Your task to perform on an android device: toggle notifications settings in the gmail app Image 0: 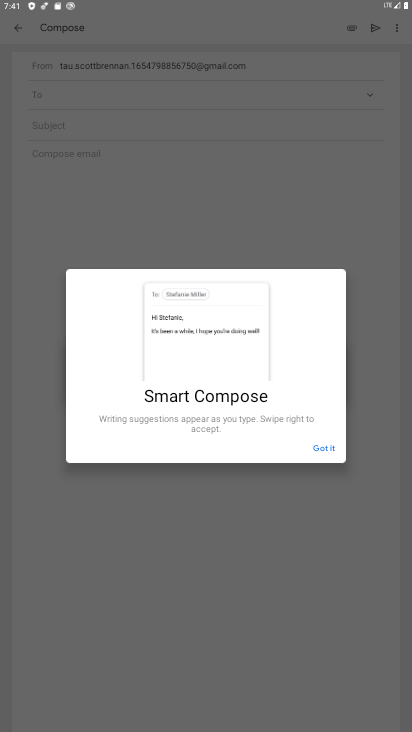
Step 0: press home button
Your task to perform on an android device: toggle notifications settings in the gmail app Image 1: 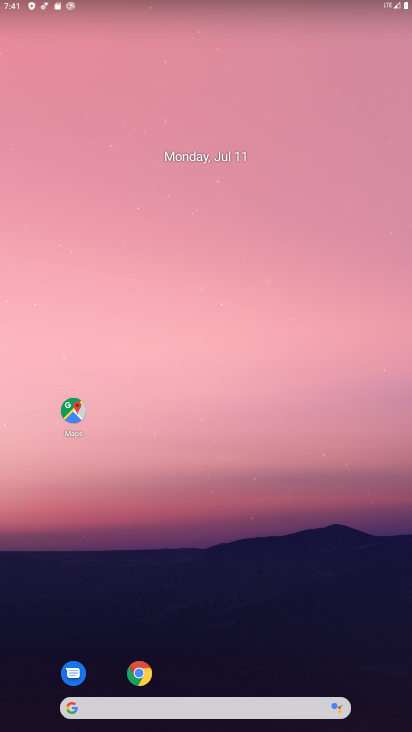
Step 1: drag from (161, 690) to (179, 441)
Your task to perform on an android device: toggle notifications settings in the gmail app Image 2: 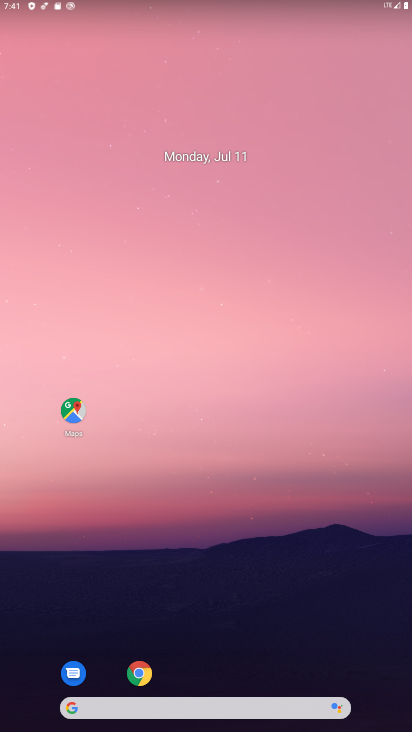
Step 2: drag from (231, 693) to (224, 263)
Your task to perform on an android device: toggle notifications settings in the gmail app Image 3: 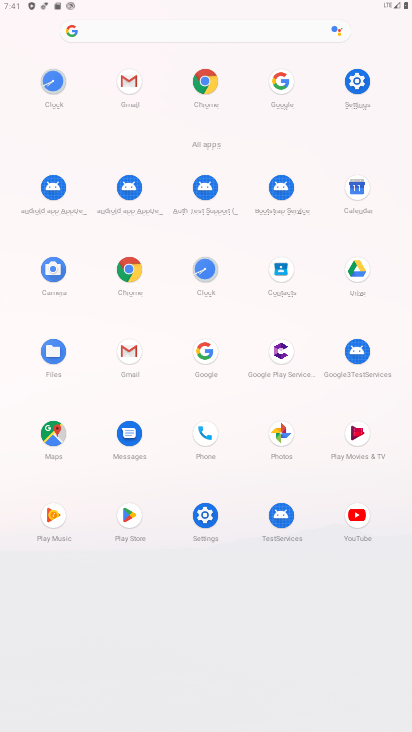
Step 3: click (132, 88)
Your task to perform on an android device: toggle notifications settings in the gmail app Image 4: 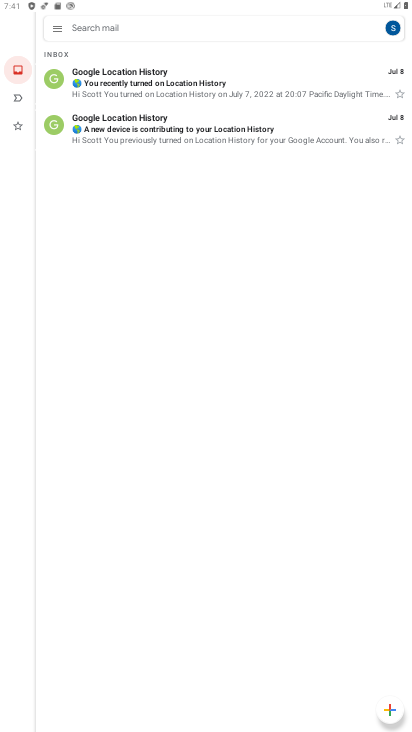
Step 4: click (59, 25)
Your task to perform on an android device: toggle notifications settings in the gmail app Image 5: 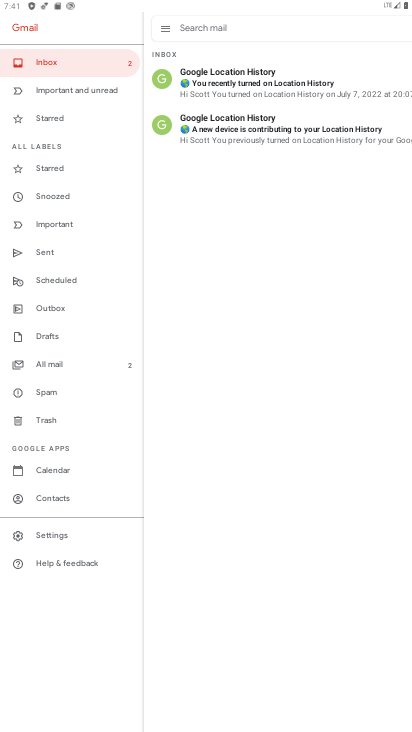
Step 5: click (69, 537)
Your task to perform on an android device: toggle notifications settings in the gmail app Image 6: 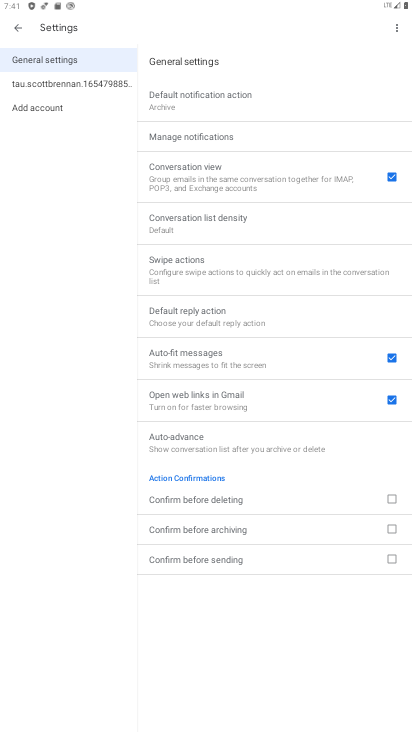
Step 6: click (169, 60)
Your task to perform on an android device: toggle notifications settings in the gmail app Image 7: 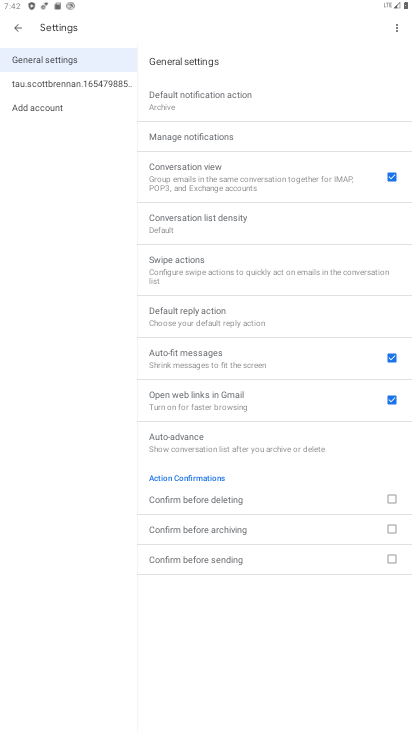
Step 7: click (174, 135)
Your task to perform on an android device: toggle notifications settings in the gmail app Image 8: 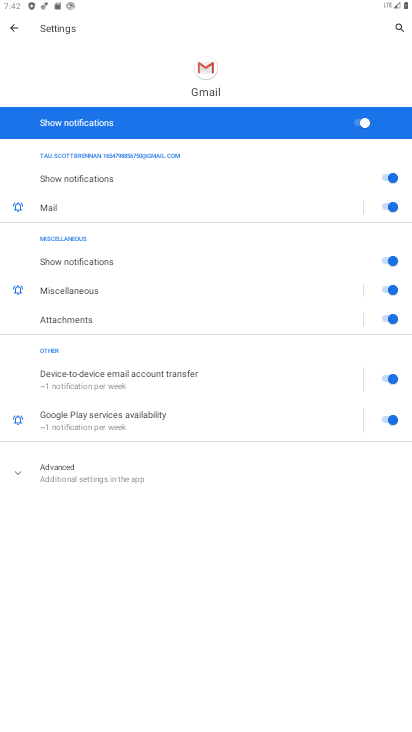
Step 8: click (367, 121)
Your task to perform on an android device: toggle notifications settings in the gmail app Image 9: 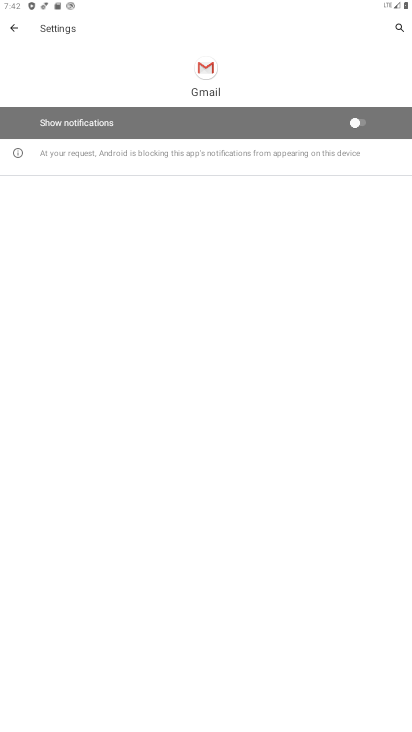
Step 9: task complete